Your task to perform on an android device: Is it going to rain this weekend? Image 0: 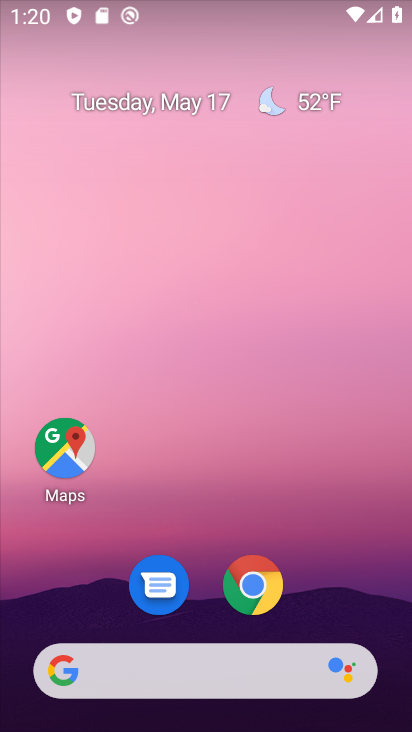
Step 0: click (303, 96)
Your task to perform on an android device: Is it going to rain this weekend? Image 1: 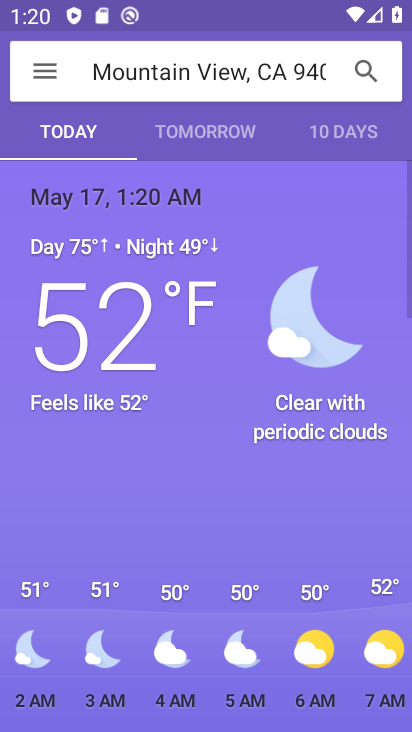
Step 1: click (342, 130)
Your task to perform on an android device: Is it going to rain this weekend? Image 2: 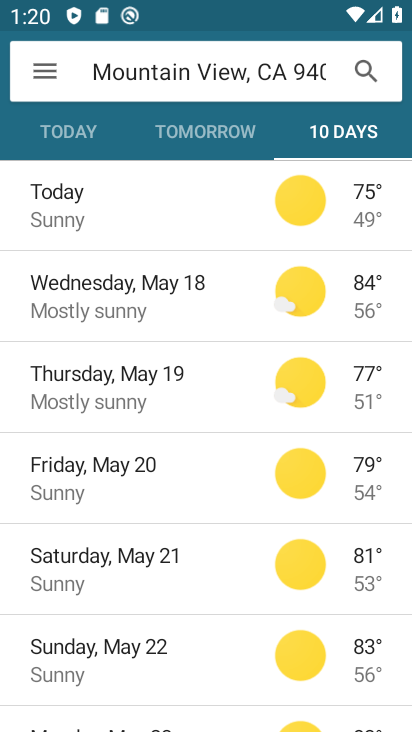
Step 2: click (141, 558)
Your task to perform on an android device: Is it going to rain this weekend? Image 3: 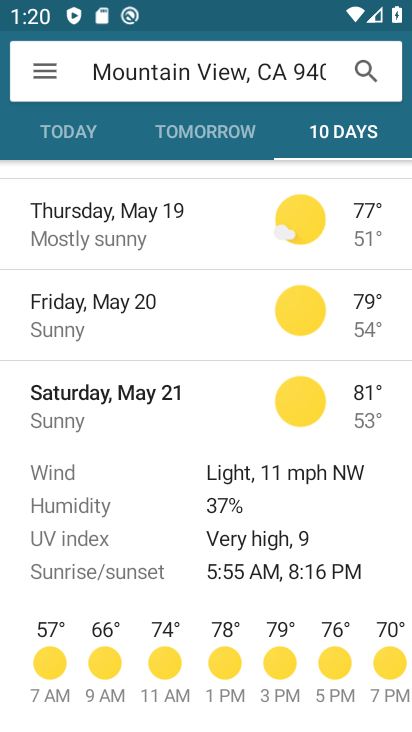
Step 3: task complete